Your task to perform on an android device: Empty the shopping cart on amazon.com. Add macbook pro 15 inch to the cart on amazon.com, then select checkout. Image 0: 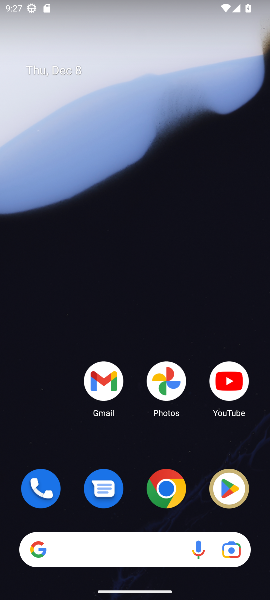
Step 0: drag from (105, 544) to (105, 81)
Your task to perform on an android device: Empty the shopping cart on amazon.com. Add macbook pro 15 inch to the cart on amazon.com, then select checkout. Image 1: 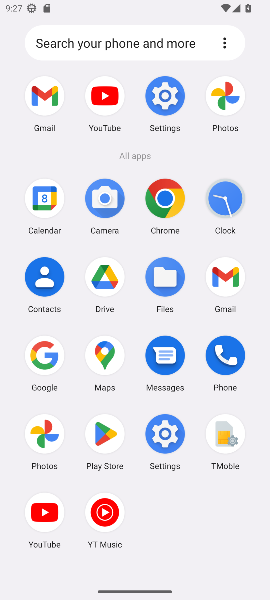
Step 1: click (39, 360)
Your task to perform on an android device: Empty the shopping cart on amazon.com. Add macbook pro 15 inch to the cart on amazon.com, then select checkout. Image 2: 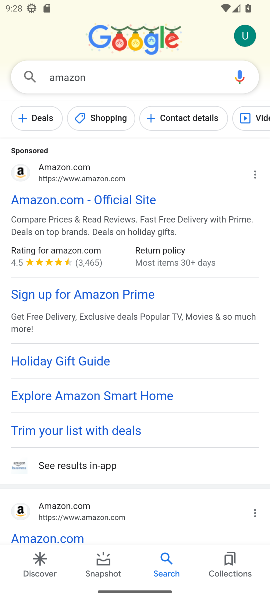
Step 2: click (49, 199)
Your task to perform on an android device: Empty the shopping cart on amazon.com. Add macbook pro 15 inch to the cart on amazon.com, then select checkout. Image 3: 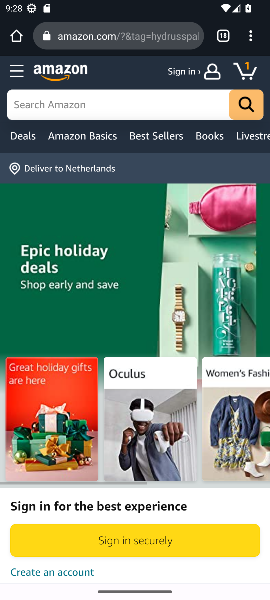
Step 3: click (80, 98)
Your task to perform on an android device: Empty the shopping cart on amazon.com. Add macbook pro 15 inch to the cart on amazon.com, then select checkout. Image 4: 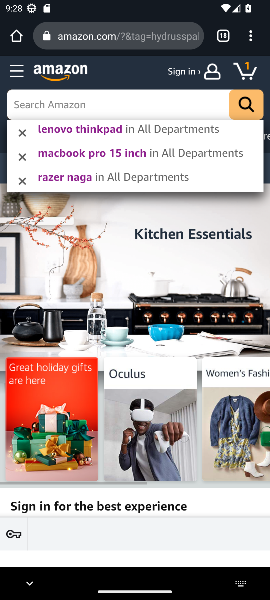
Step 4: type "macbook pro 15 inch"
Your task to perform on an android device: Empty the shopping cart on amazon.com. Add macbook pro 15 inch to the cart on amazon.com, then select checkout. Image 5: 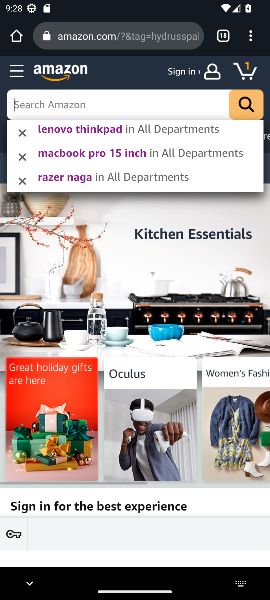
Step 5: click (245, 102)
Your task to perform on an android device: Empty the shopping cart on amazon.com. Add macbook pro 15 inch to the cart on amazon.com, then select checkout. Image 6: 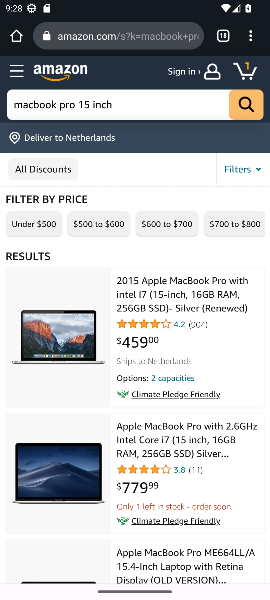
Step 6: click (156, 310)
Your task to perform on an android device: Empty the shopping cart on amazon.com. Add macbook pro 15 inch to the cart on amazon.com, then select checkout. Image 7: 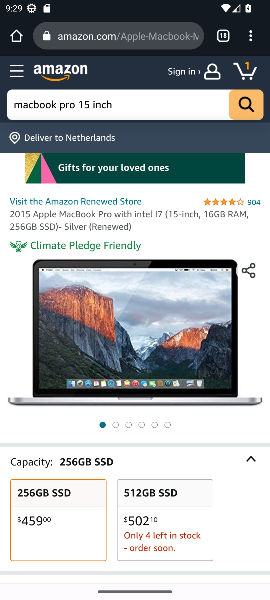
Step 7: drag from (209, 448) to (200, 144)
Your task to perform on an android device: Empty the shopping cart on amazon.com. Add macbook pro 15 inch to the cart on amazon.com, then select checkout. Image 8: 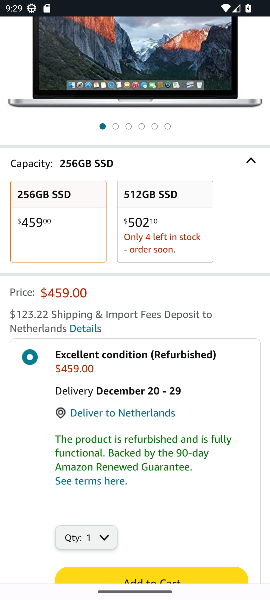
Step 8: drag from (237, 541) to (228, 261)
Your task to perform on an android device: Empty the shopping cart on amazon.com. Add macbook pro 15 inch to the cart on amazon.com, then select checkout. Image 9: 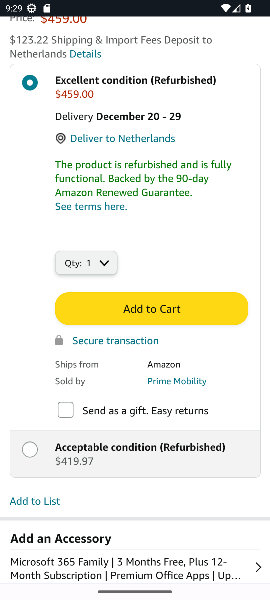
Step 9: click (139, 306)
Your task to perform on an android device: Empty the shopping cart on amazon.com. Add macbook pro 15 inch to the cart on amazon.com, then select checkout. Image 10: 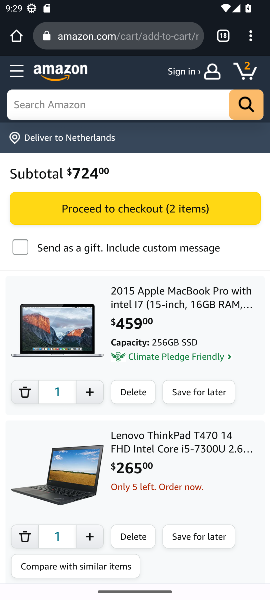
Step 10: click (131, 206)
Your task to perform on an android device: Empty the shopping cart on amazon.com. Add macbook pro 15 inch to the cart on amazon.com, then select checkout. Image 11: 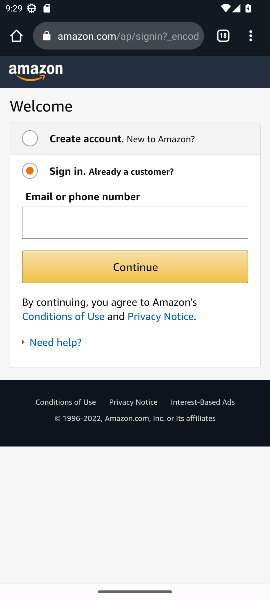
Step 11: task complete